Your task to perform on an android device: allow notifications from all sites in the chrome app Image 0: 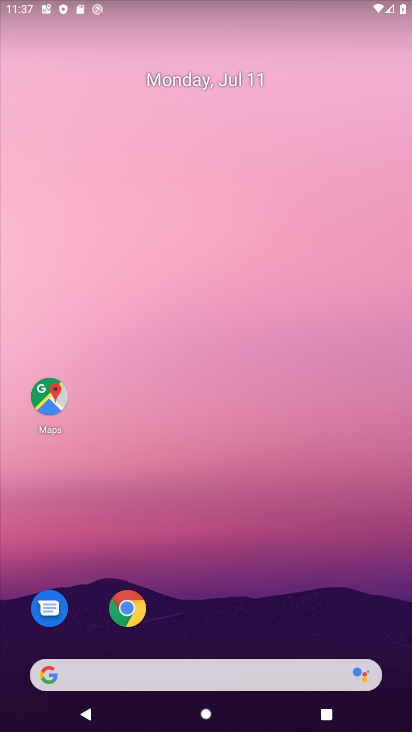
Step 0: click (137, 613)
Your task to perform on an android device: allow notifications from all sites in the chrome app Image 1: 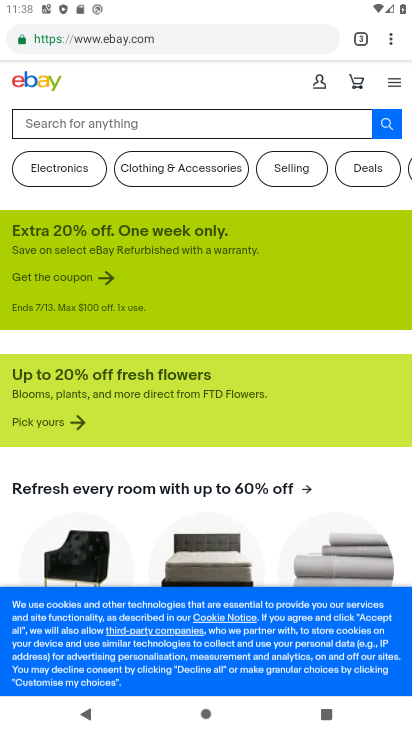
Step 1: click (399, 42)
Your task to perform on an android device: allow notifications from all sites in the chrome app Image 2: 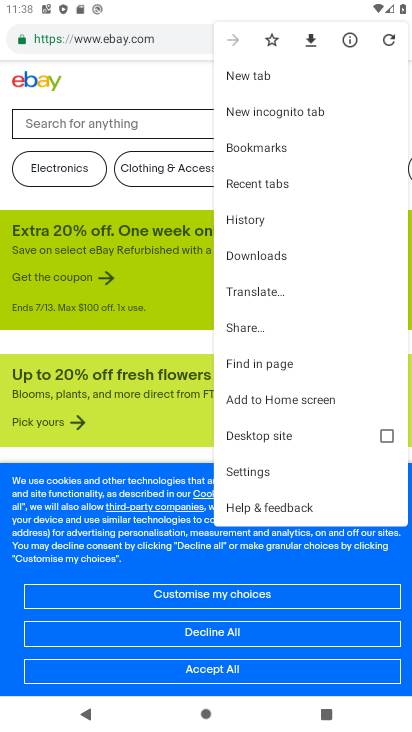
Step 2: click (264, 469)
Your task to perform on an android device: allow notifications from all sites in the chrome app Image 3: 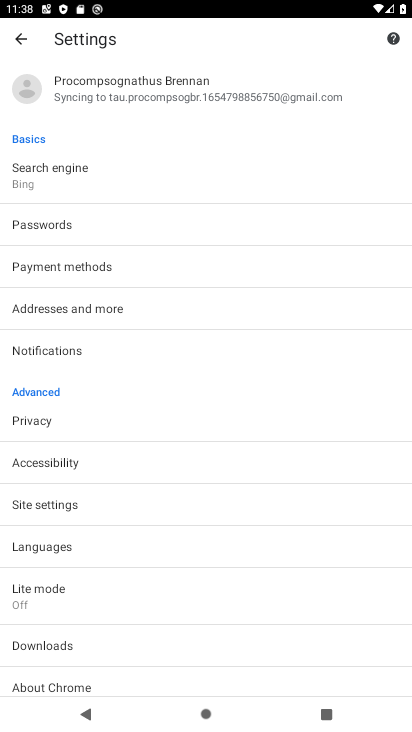
Step 3: click (129, 345)
Your task to perform on an android device: allow notifications from all sites in the chrome app Image 4: 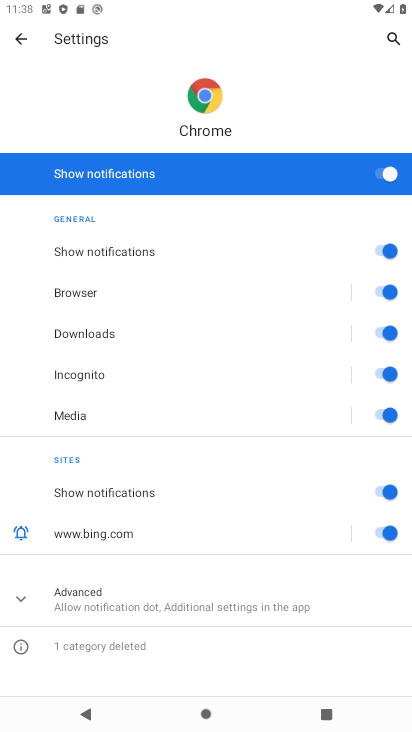
Step 4: click (196, 603)
Your task to perform on an android device: allow notifications from all sites in the chrome app Image 5: 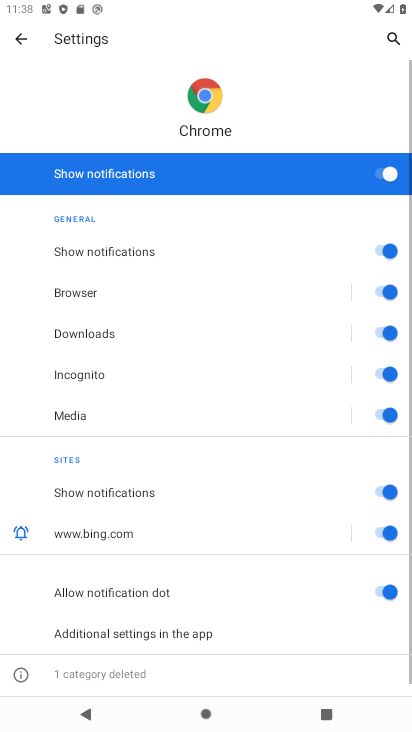
Step 5: task complete